Your task to perform on an android device: Do I have any events this weekend? Image 0: 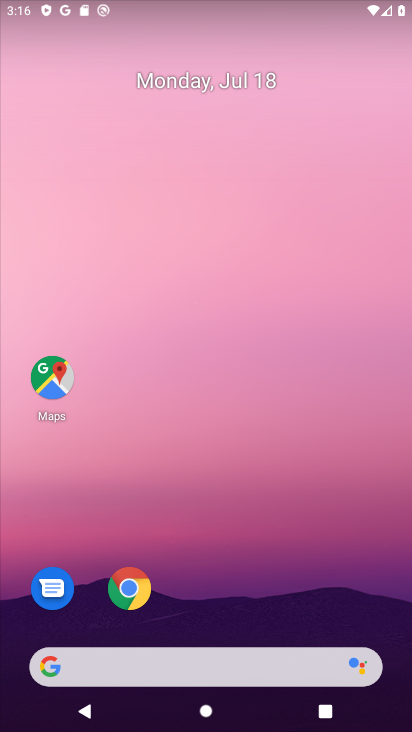
Step 0: drag from (354, 601) to (253, 69)
Your task to perform on an android device: Do I have any events this weekend? Image 1: 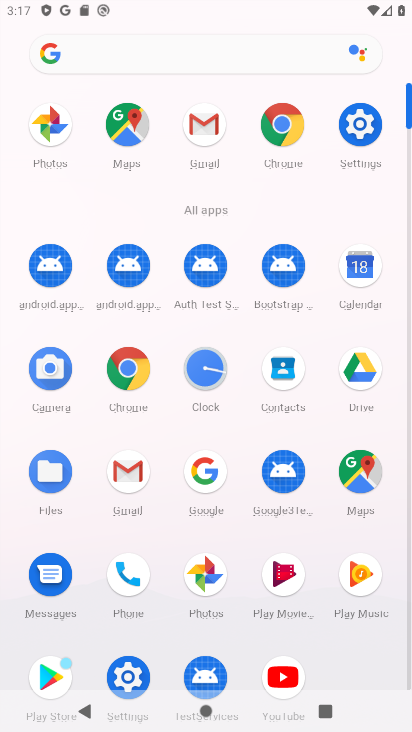
Step 1: click (357, 261)
Your task to perform on an android device: Do I have any events this weekend? Image 2: 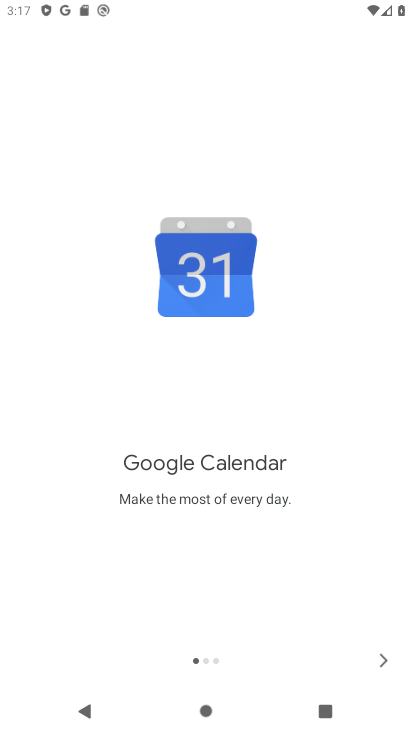
Step 2: click (381, 659)
Your task to perform on an android device: Do I have any events this weekend? Image 3: 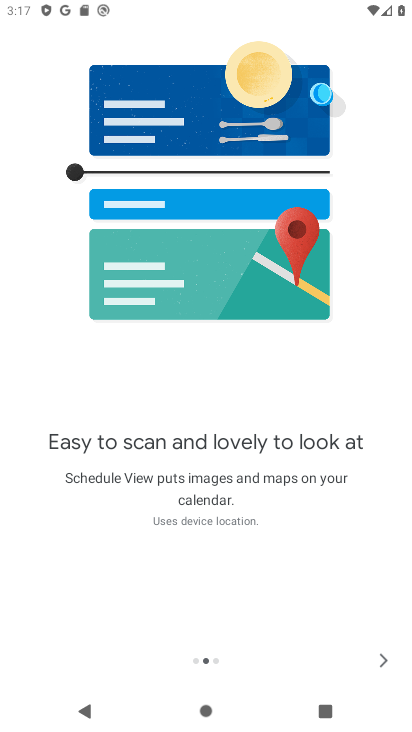
Step 3: click (383, 663)
Your task to perform on an android device: Do I have any events this weekend? Image 4: 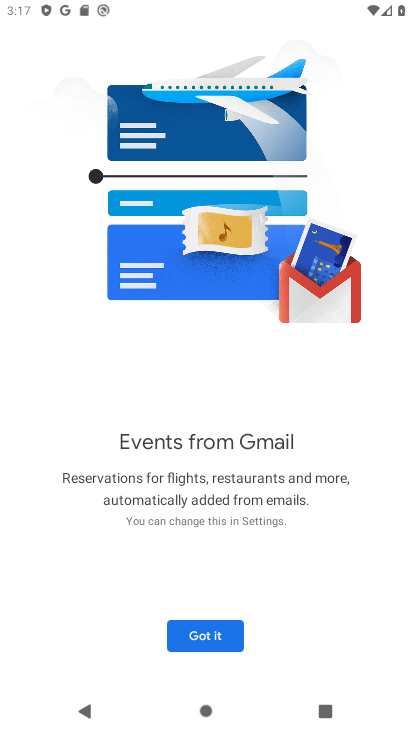
Step 4: click (228, 643)
Your task to perform on an android device: Do I have any events this weekend? Image 5: 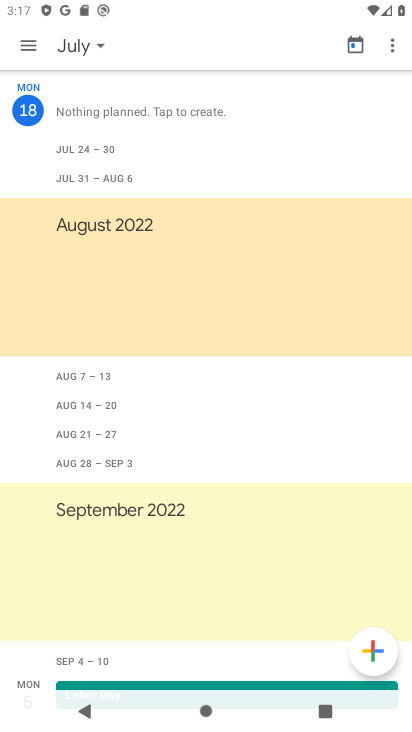
Step 5: click (28, 45)
Your task to perform on an android device: Do I have any events this weekend? Image 6: 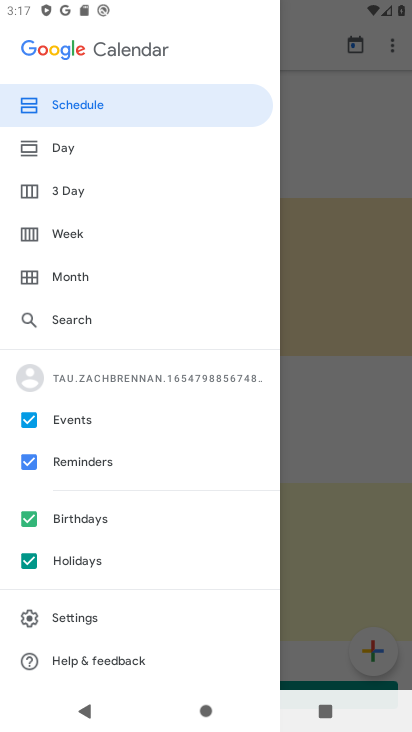
Step 6: click (29, 553)
Your task to perform on an android device: Do I have any events this weekend? Image 7: 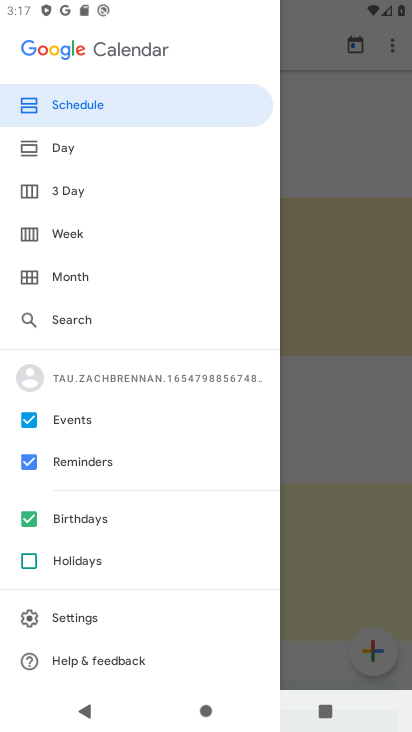
Step 7: click (30, 520)
Your task to perform on an android device: Do I have any events this weekend? Image 8: 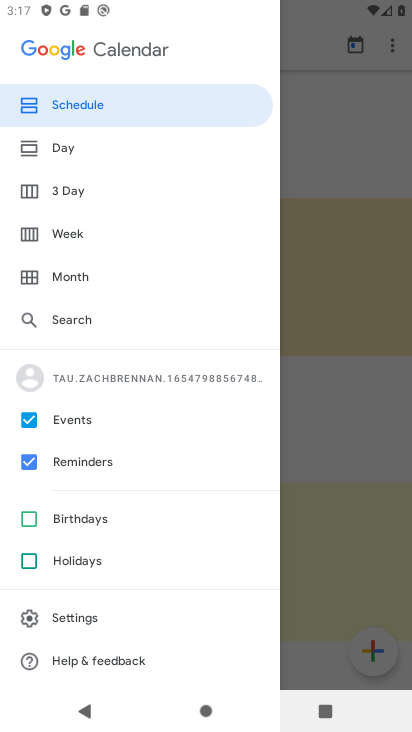
Step 8: click (28, 461)
Your task to perform on an android device: Do I have any events this weekend? Image 9: 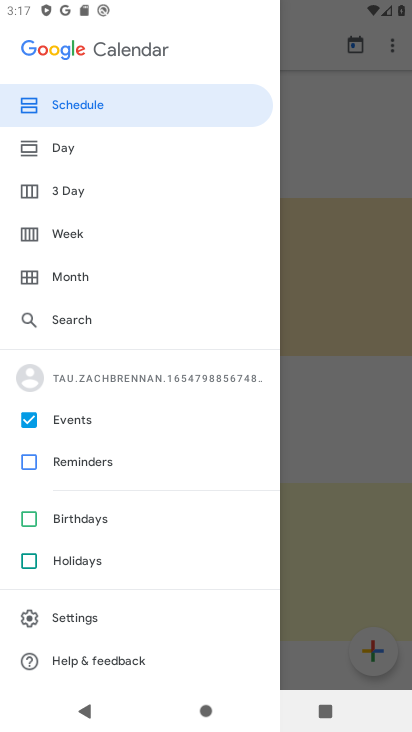
Step 9: click (67, 228)
Your task to perform on an android device: Do I have any events this weekend? Image 10: 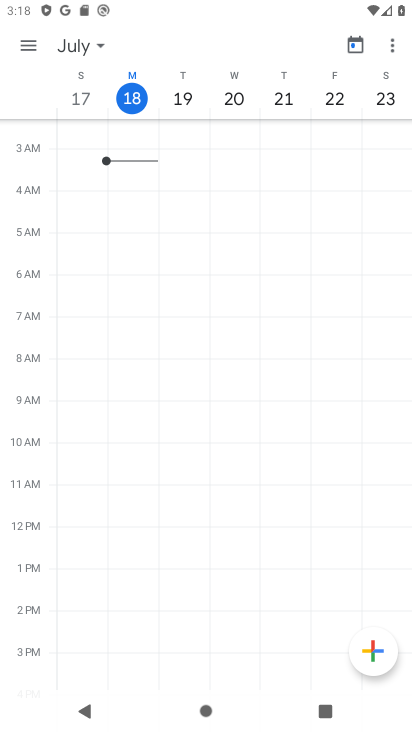
Step 10: click (382, 99)
Your task to perform on an android device: Do I have any events this weekend? Image 11: 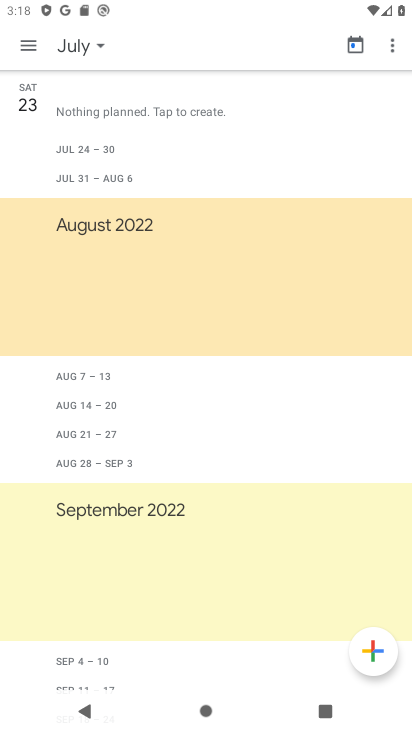
Step 11: task complete